Your task to perform on an android device: toggle notification dots Image 0: 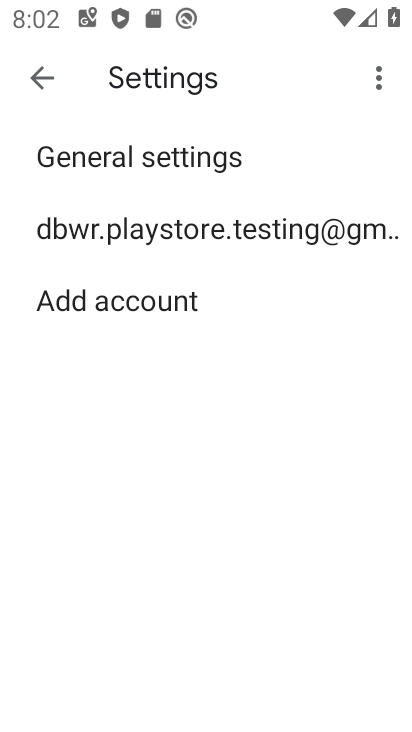
Step 0: press home button
Your task to perform on an android device: toggle notification dots Image 1: 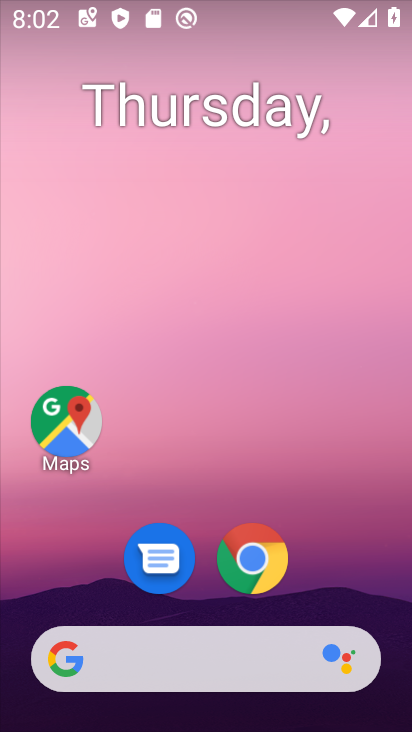
Step 1: drag from (192, 610) to (210, 112)
Your task to perform on an android device: toggle notification dots Image 2: 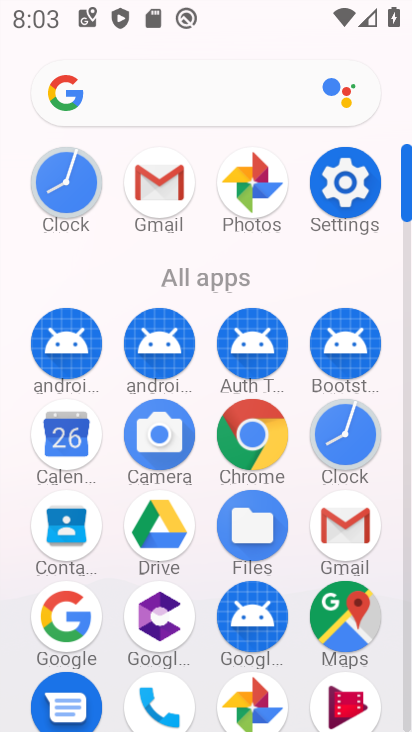
Step 2: click (347, 184)
Your task to perform on an android device: toggle notification dots Image 3: 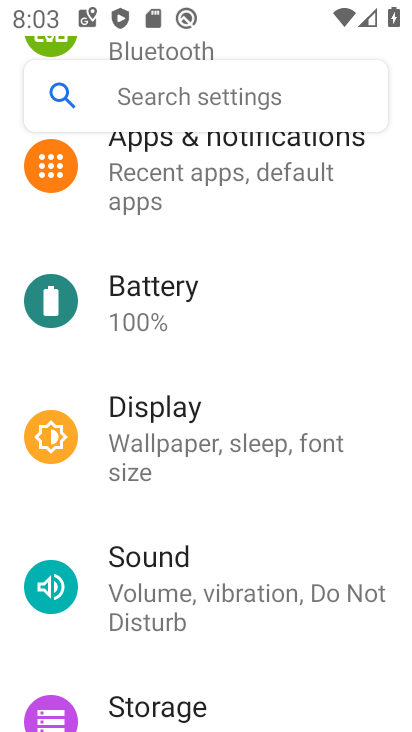
Step 3: click (240, 162)
Your task to perform on an android device: toggle notification dots Image 4: 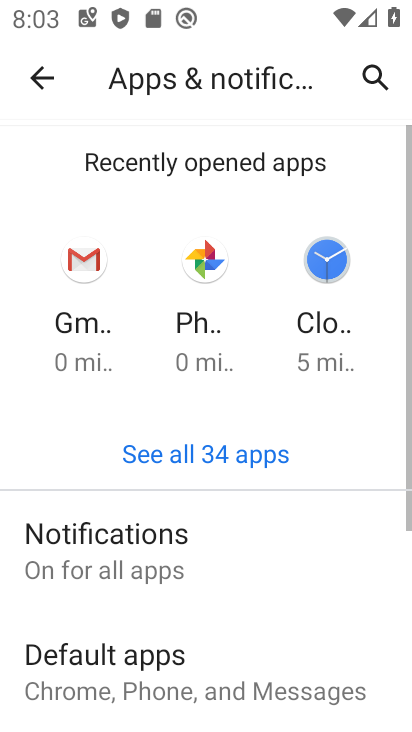
Step 4: click (160, 554)
Your task to perform on an android device: toggle notification dots Image 5: 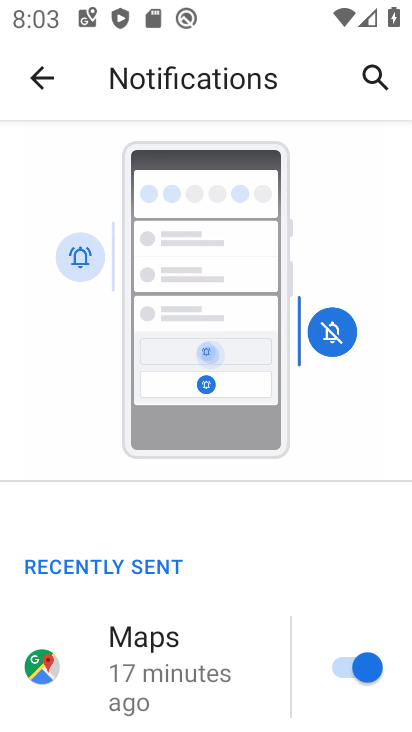
Step 5: drag from (286, 251) to (311, 32)
Your task to perform on an android device: toggle notification dots Image 6: 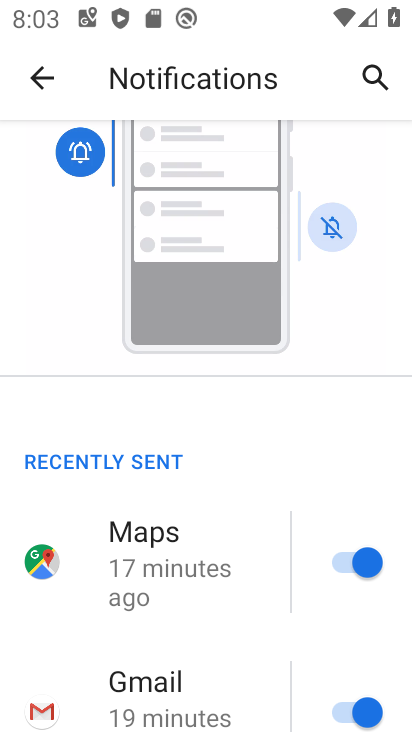
Step 6: drag from (257, 584) to (323, 53)
Your task to perform on an android device: toggle notification dots Image 7: 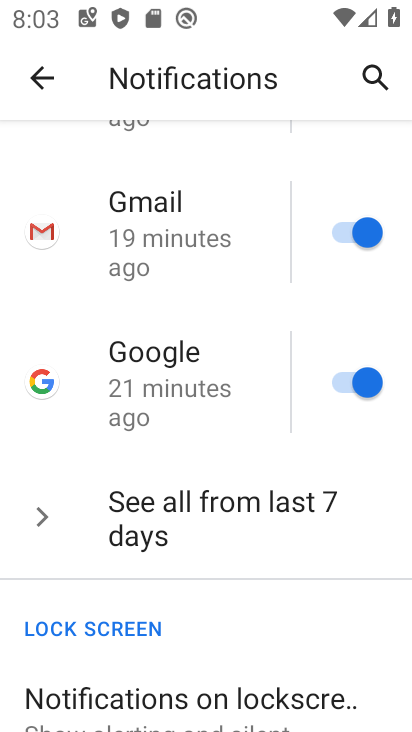
Step 7: drag from (235, 703) to (262, 166)
Your task to perform on an android device: toggle notification dots Image 8: 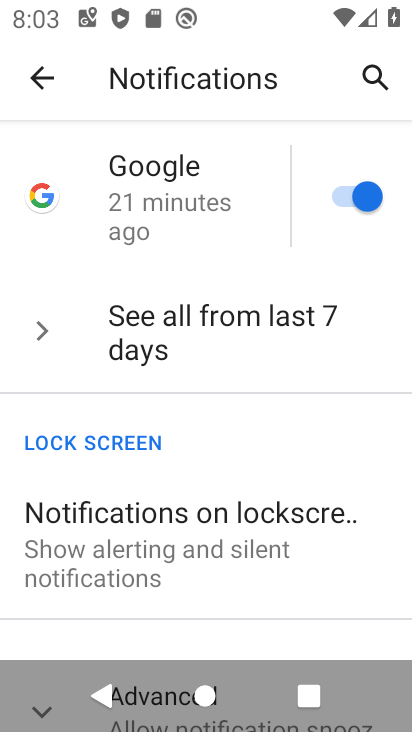
Step 8: drag from (234, 570) to (239, 100)
Your task to perform on an android device: toggle notification dots Image 9: 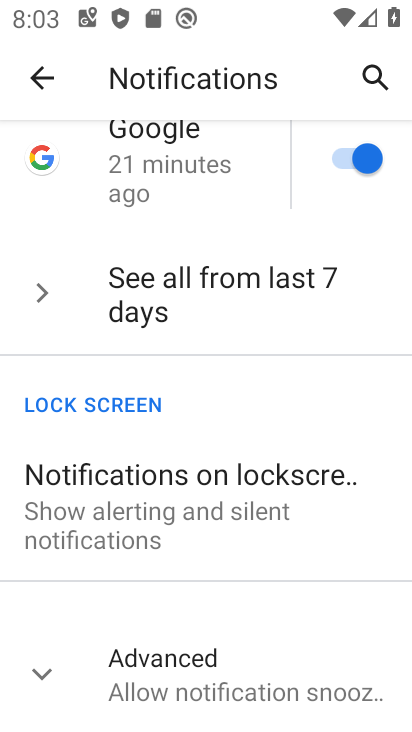
Step 9: click (192, 666)
Your task to perform on an android device: toggle notification dots Image 10: 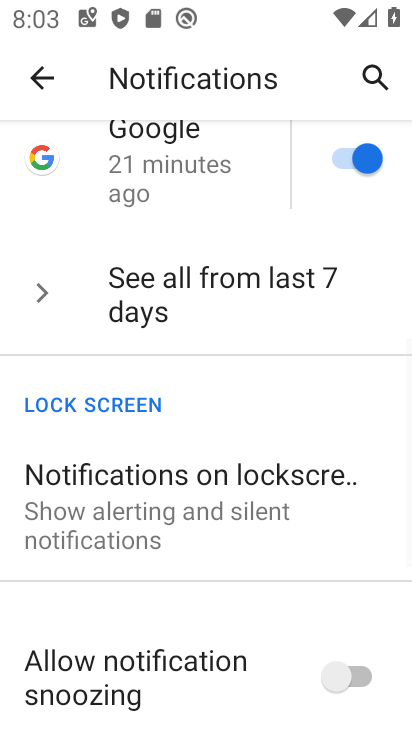
Step 10: drag from (221, 707) to (246, 162)
Your task to perform on an android device: toggle notification dots Image 11: 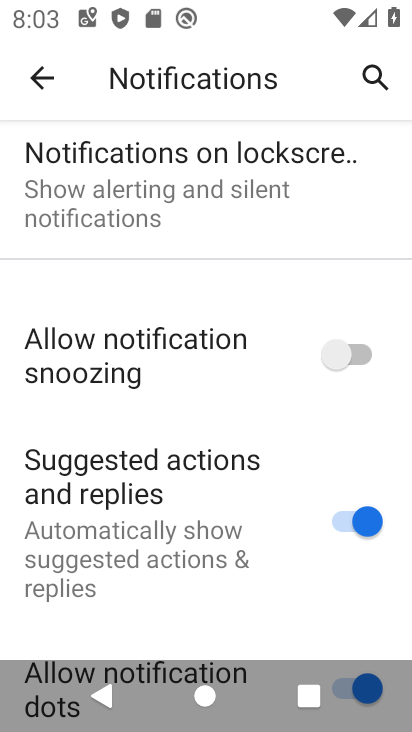
Step 11: drag from (228, 572) to (227, 197)
Your task to perform on an android device: toggle notification dots Image 12: 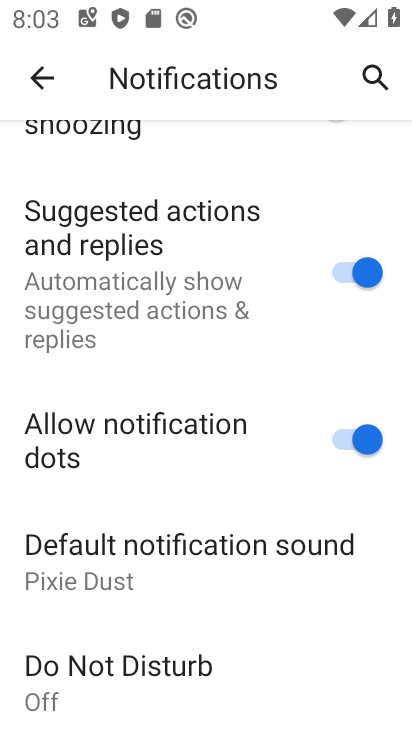
Step 12: click (340, 437)
Your task to perform on an android device: toggle notification dots Image 13: 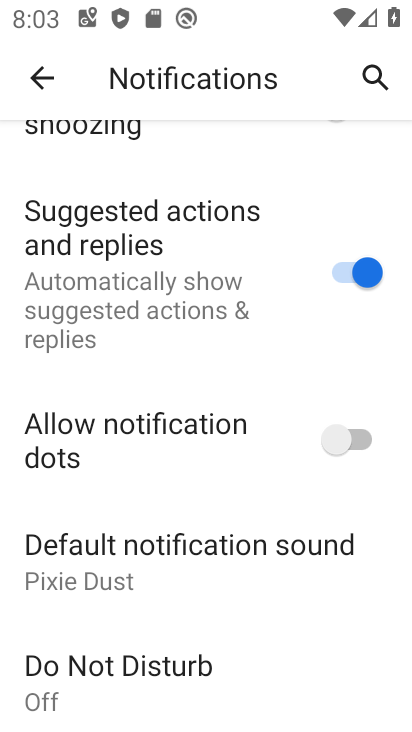
Step 13: task complete